Your task to perform on an android device: What's the news about the US dollar exchange rate? Image 0: 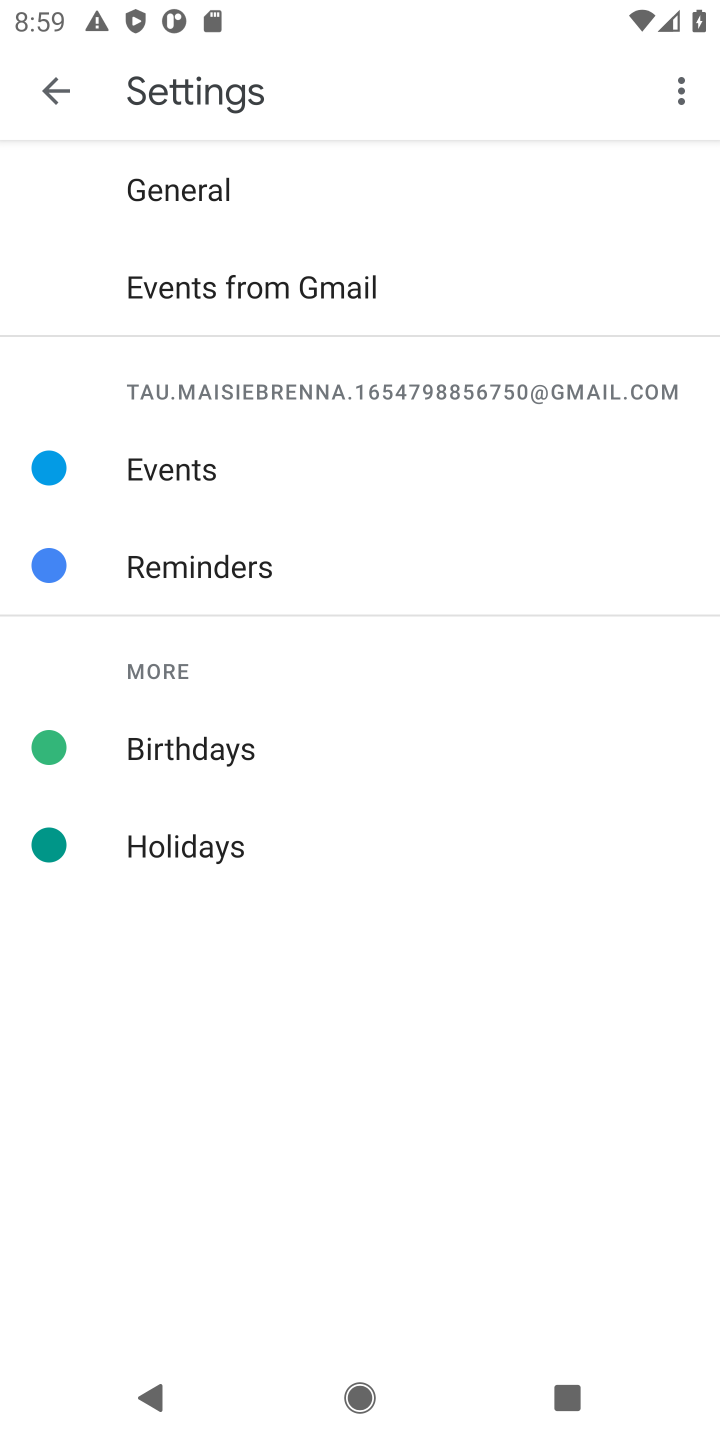
Step 0: press home button
Your task to perform on an android device: What's the news about the US dollar exchange rate? Image 1: 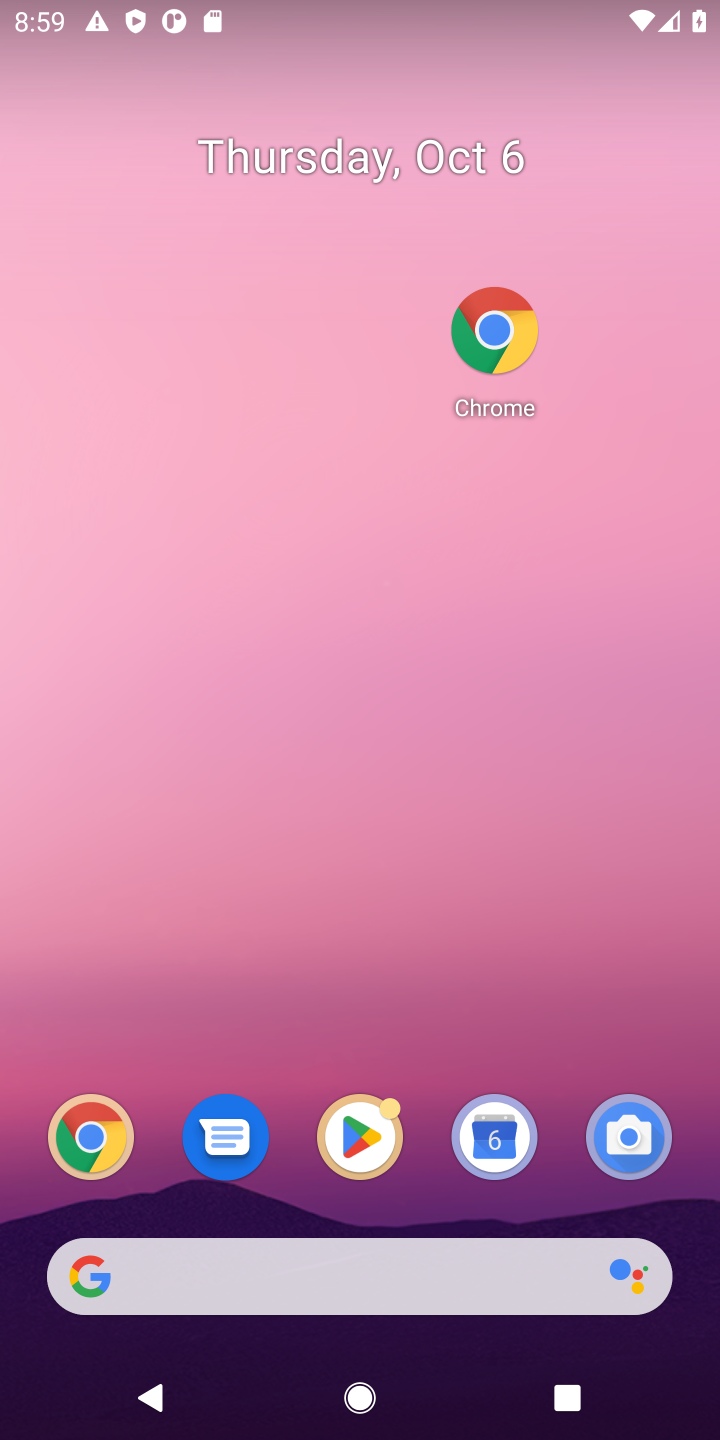
Step 1: click (99, 1156)
Your task to perform on an android device: What's the news about the US dollar exchange rate? Image 2: 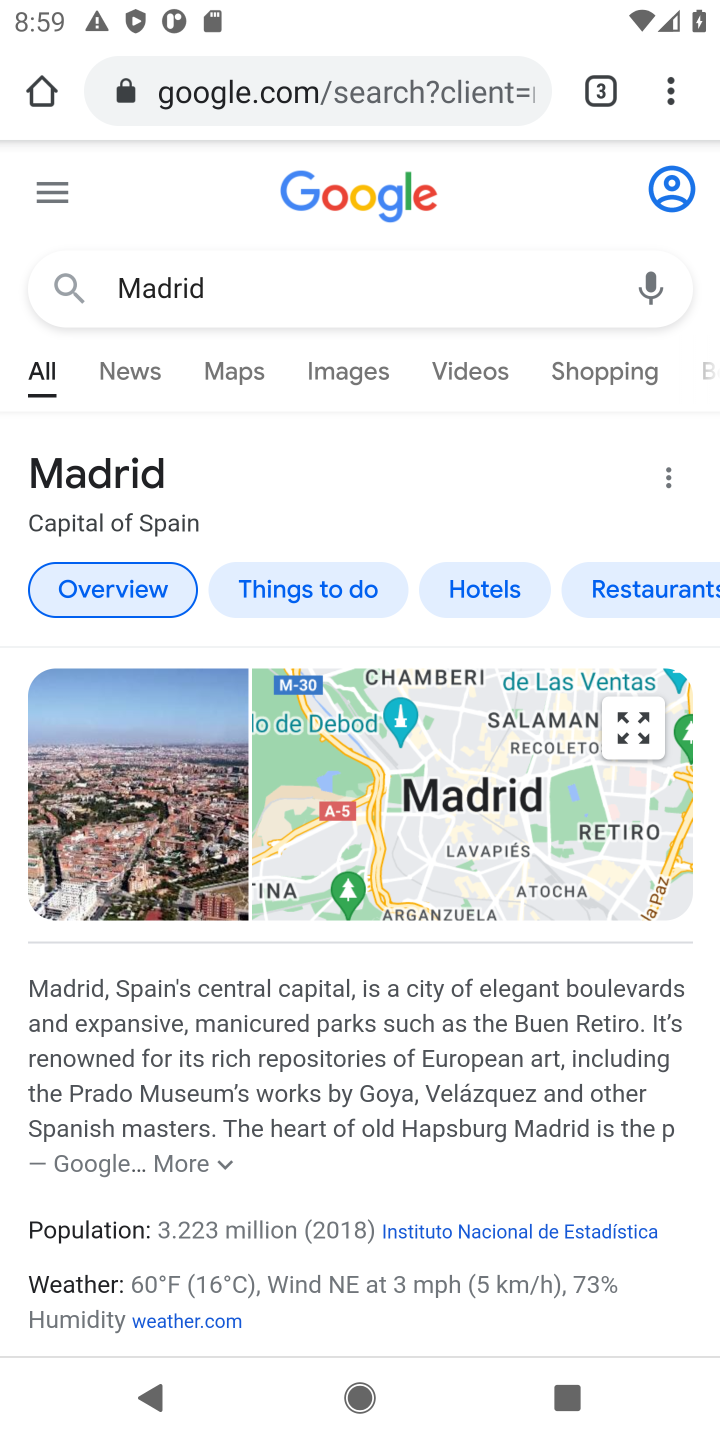
Step 2: click (268, 275)
Your task to perform on an android device: What's the news about the US dollar exchange rate? Image 3: 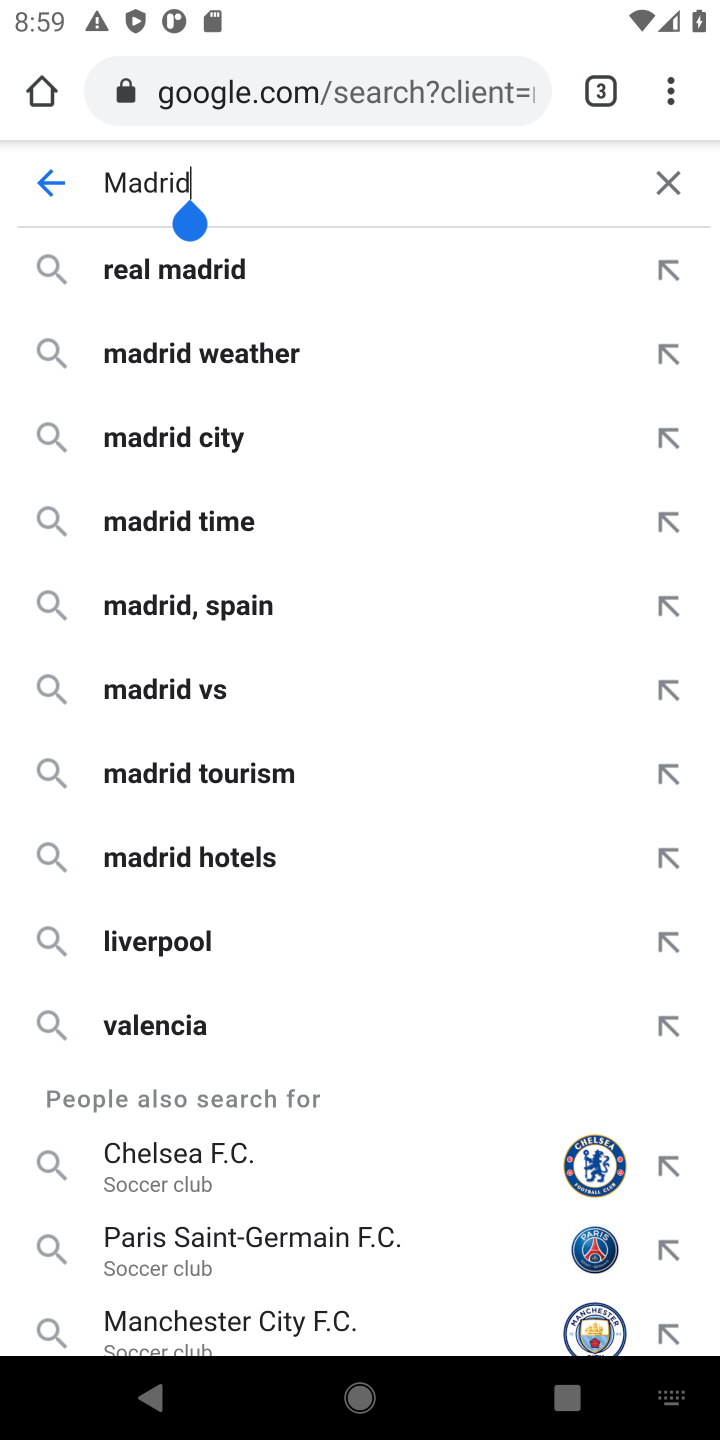
Step 3: click (665, 183)
Your task to perform on an android device: What's the news about the US dollar exchange rate? Image 4: 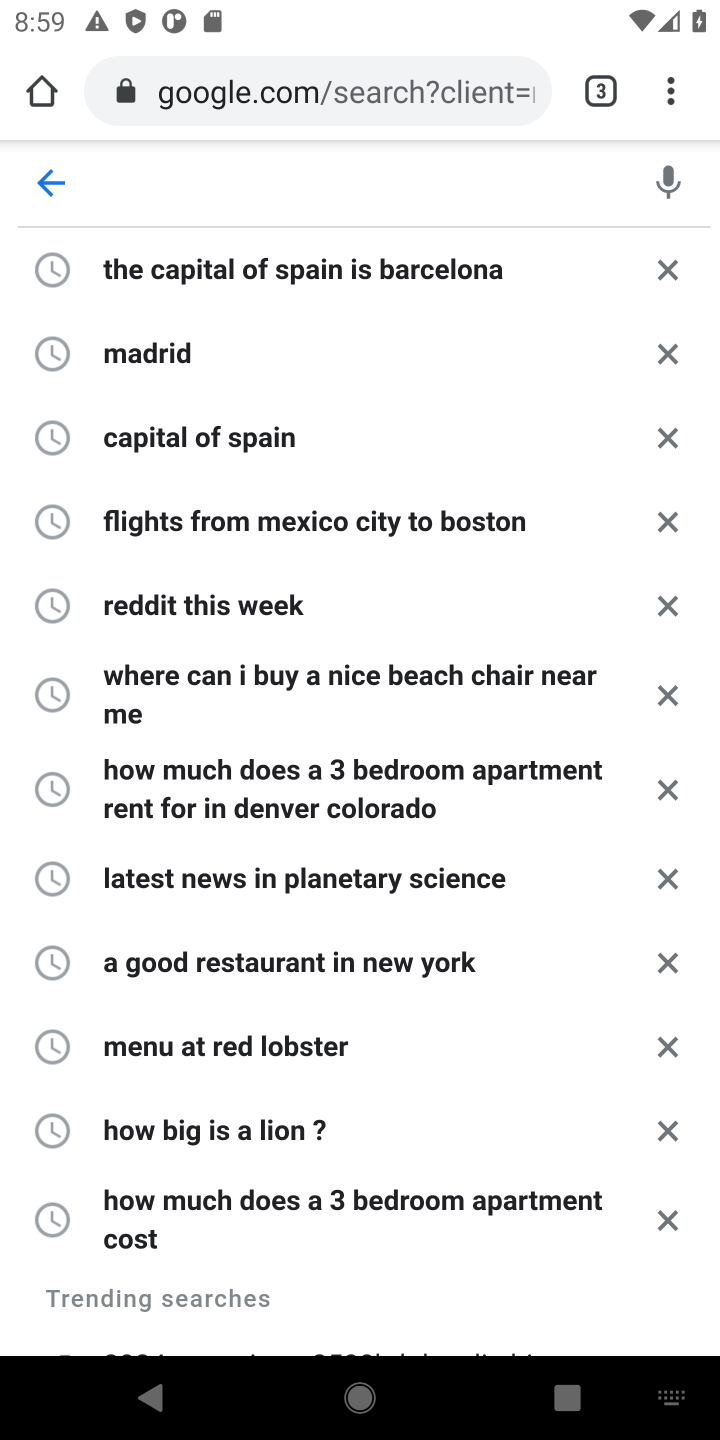
Step 4: type " news about the US dollar exchange rate"
Your task to perform on an android device: What's the news about the US dollar exchange rate? Image 5: 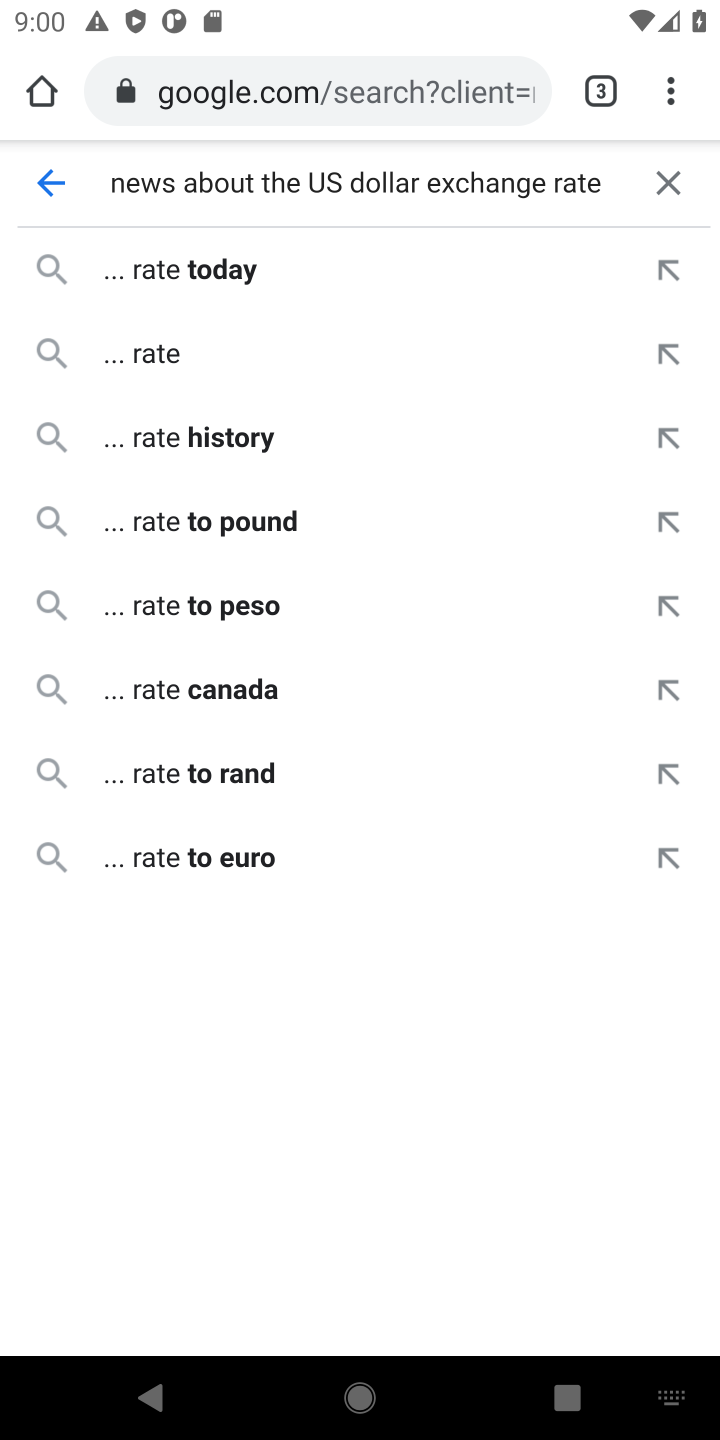
Step 5: click (171, 277)
Your task to perform on an android device: What's the news about the US dollar exchange rate? Image 6: 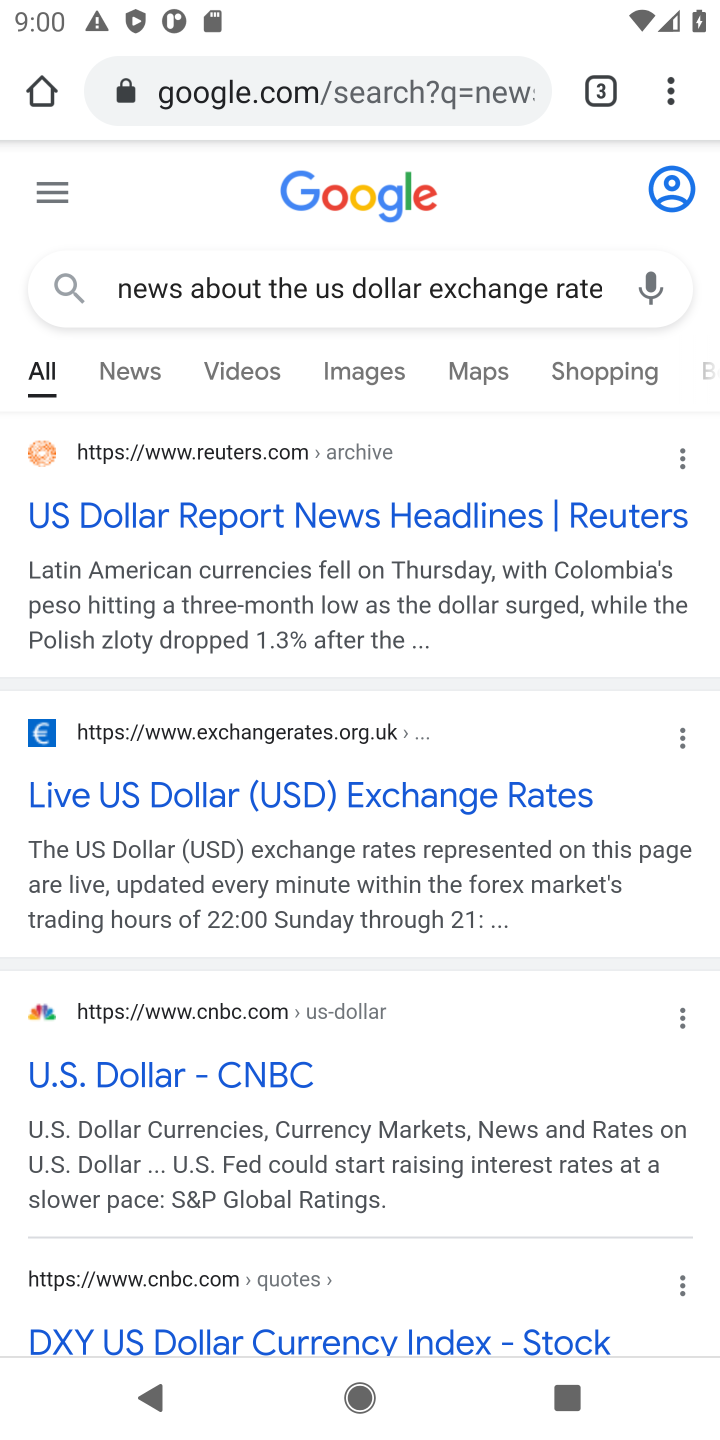
Step 6: click (200, 512)
Your task to perform on an android device: What's the news about the US dollar exchange rate? Image 7: 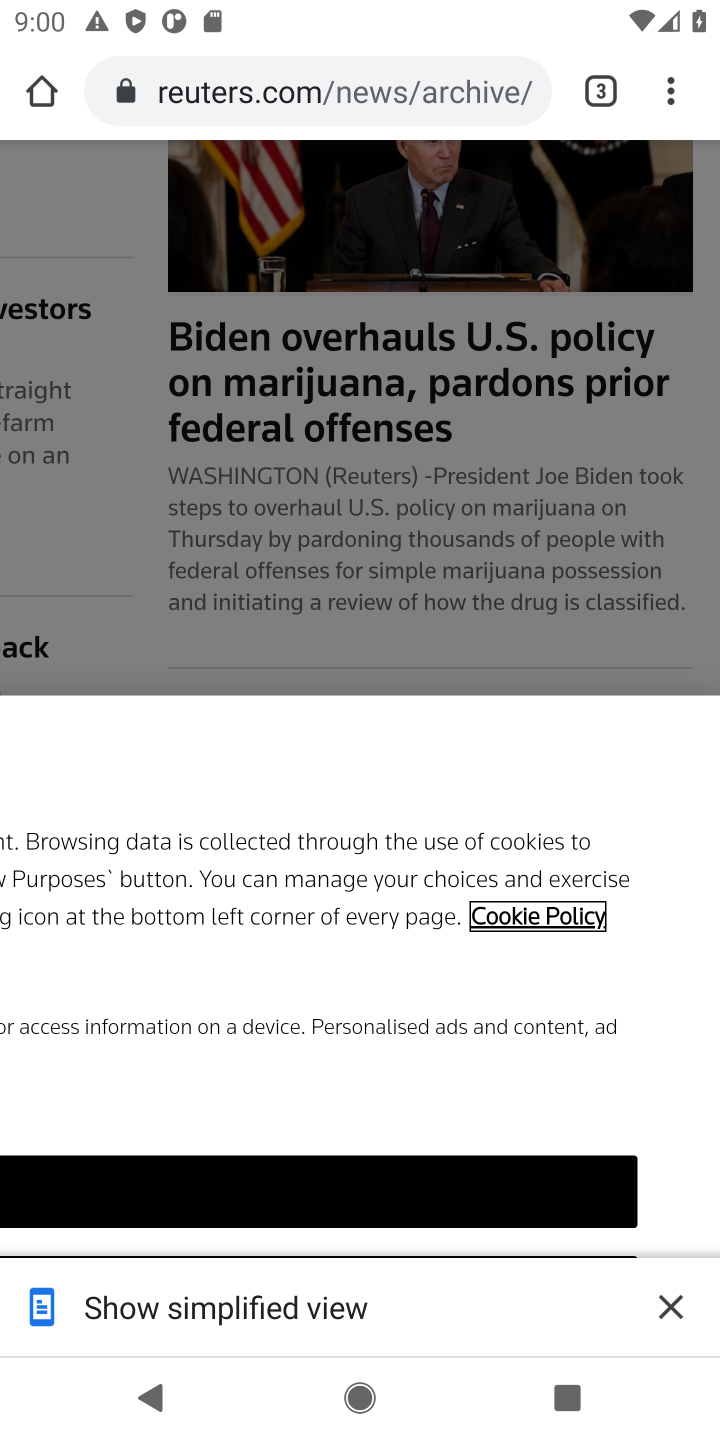
Step 7: task complete